Your task to perform on an android device: Go to settings Image 0: 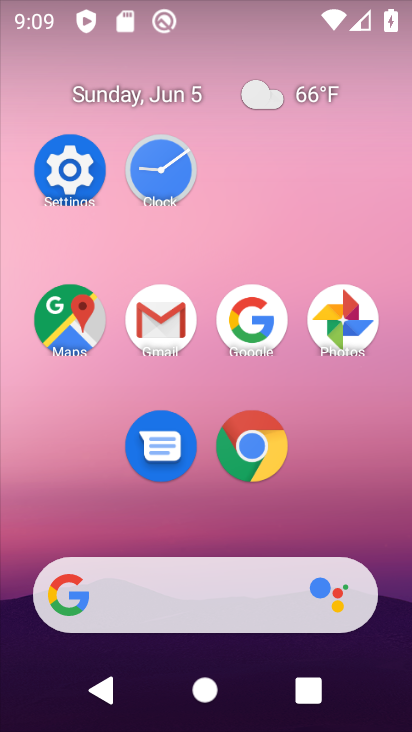
Step 0: click (81, 171)
Your task to perform on an android device: Go to settings Image 1: 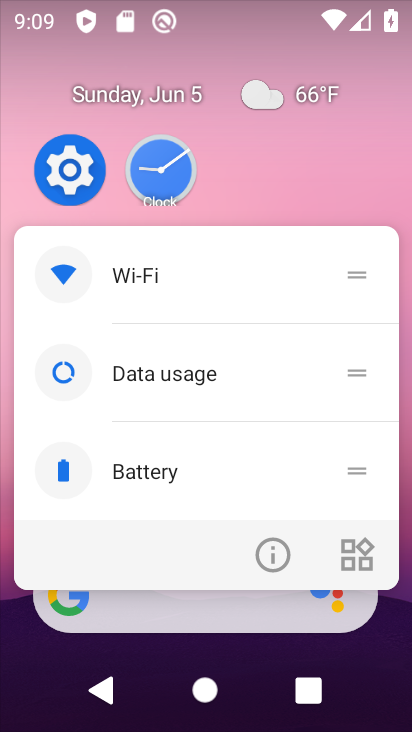
Step 1: click (62, 159)
Your task to perform on an android device: Go to settings Image 2: 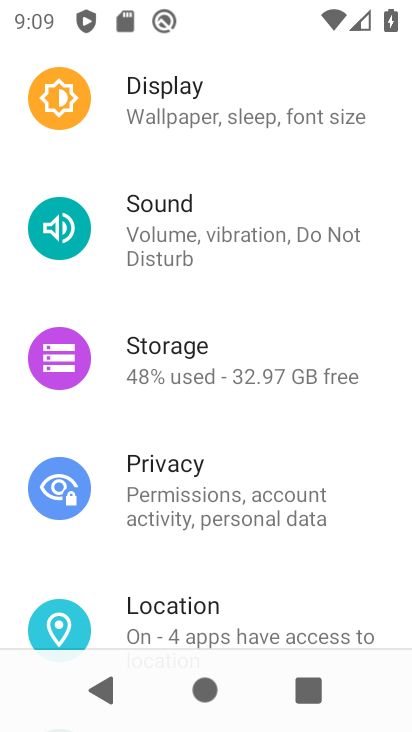
Step 2: task complete